Your task to perform on an android device: choose inbox layout in the gmail app Image 0: 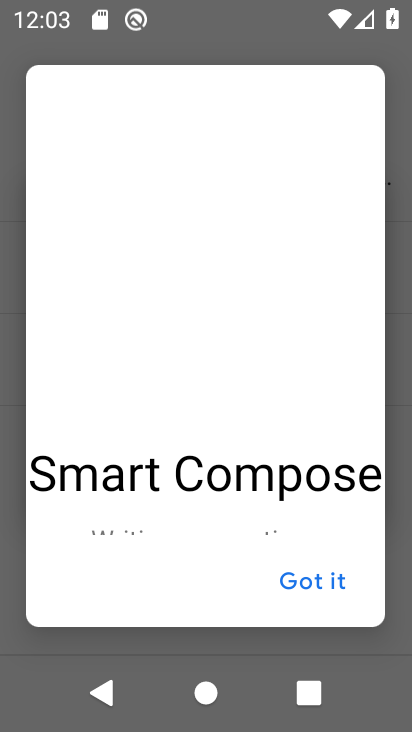
Step 0: press home button
Your task to perform on an android device: choose inbox layout in the gmail app Image 1: 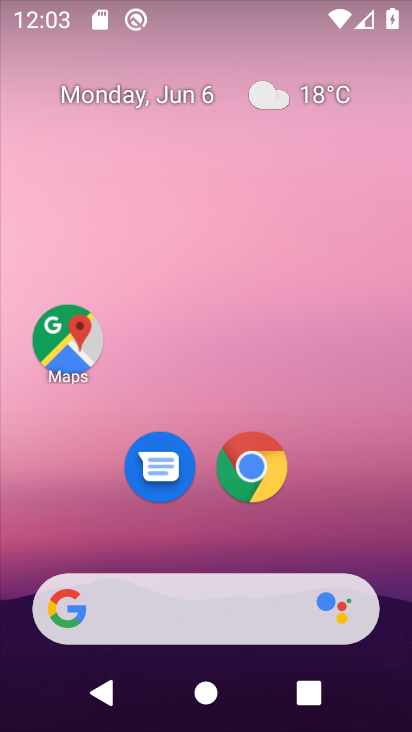
Step 1: drag from (350, 441) to (223, 59)
Your task to perform on an android device: choose inbox layout in the gmail app Image 2: 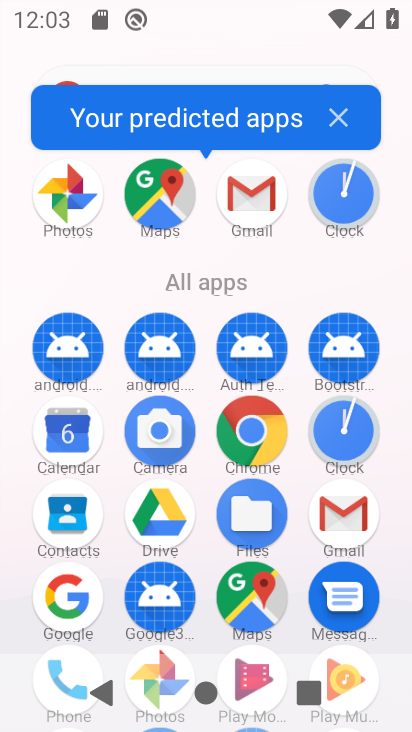
Step 2: drag from (100, 291) to (100, 170)
Your task to perform on an android device: choose inbox layout in the gmail app Image 3: 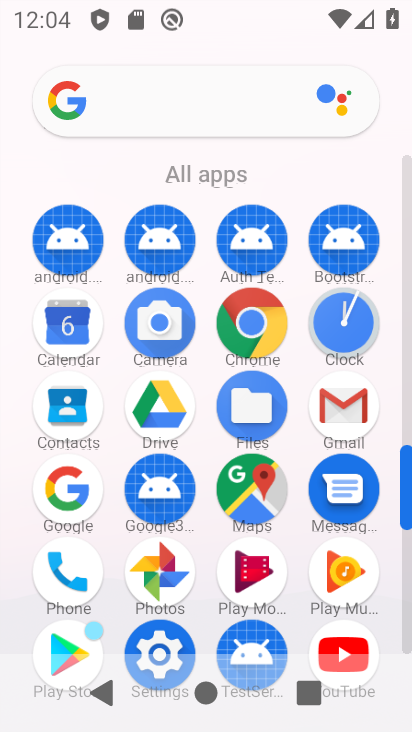
Step 3: click (344, 406)
Your task to perform on an android device: choose inbox layout in the gmail app Image 4: 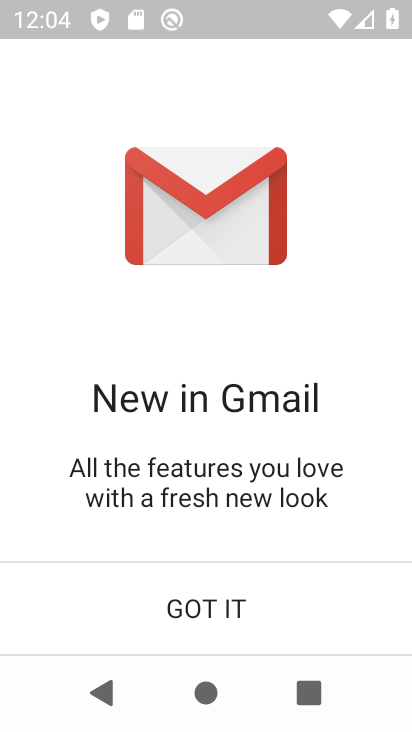
Step 4: click (206, 604)
Your task to perform on an android device: choose inbox layout in the gmail app Image 5: 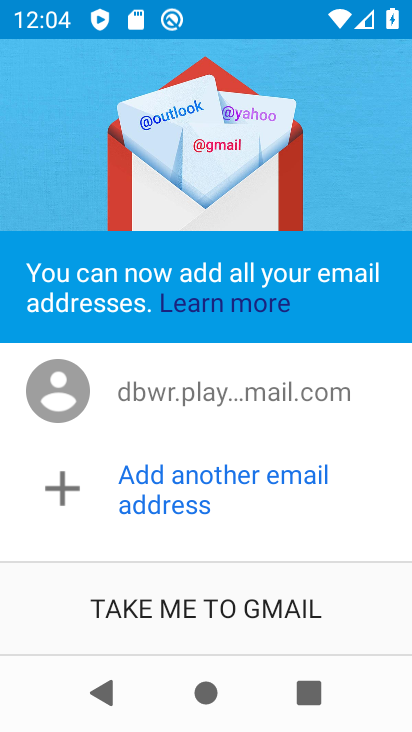
Step 5: click (206, 604)
Your task to perform on an android device: choose inbox layout in the gmail app Image 6: 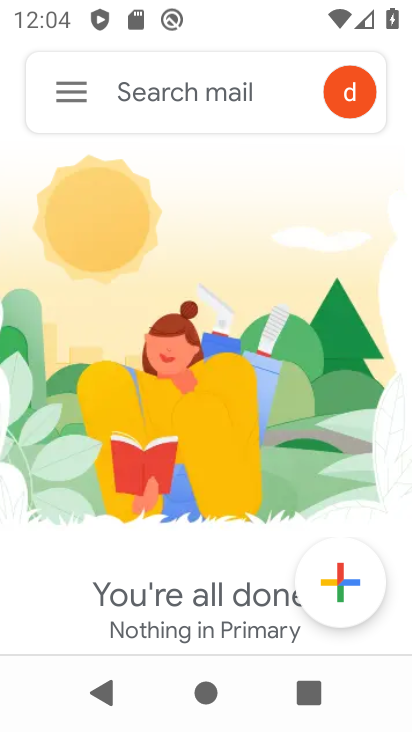
Step 6: click (67, 87)
Your task to perform on an android device: choose inbox layout in the gmail app Image 7: 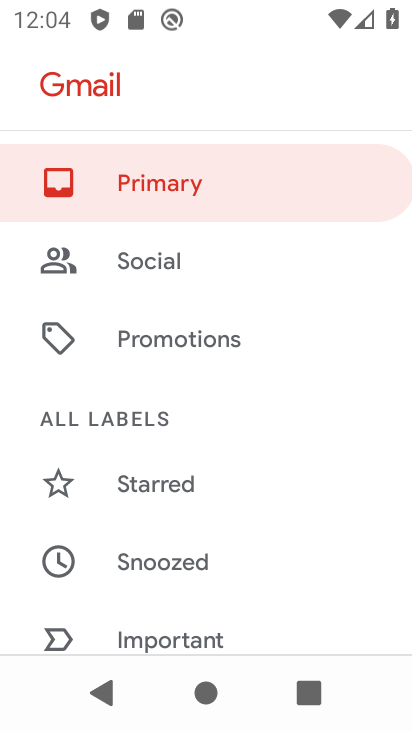
Step 7: drag from (204, 457) to (186, 358)
Your task to perform on an android device: choose inbox layout in the gmail app Image 8: 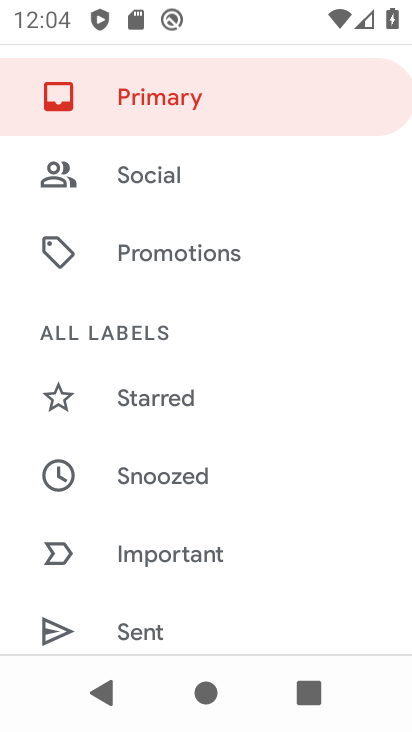
Step 8: drag from (168, 445) to (195, 357)
Your task to perform on an android device: choose inbox layout in the gmail app Image 9: 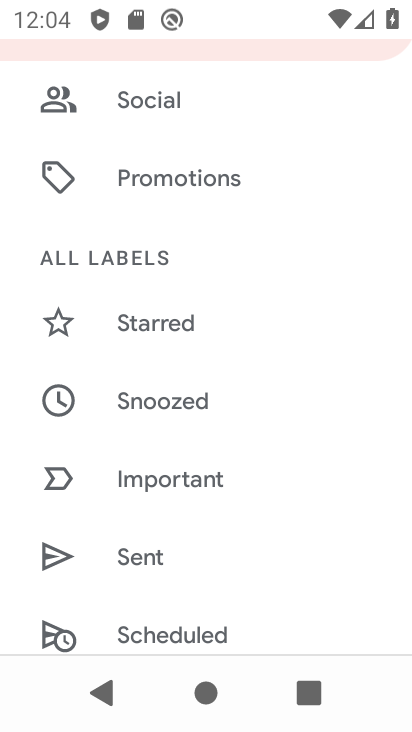
Step 9: drag from (146, 442) to (223, 341)
Your task to perform on an android device: choose inbox layout in the gmail app Image 10: 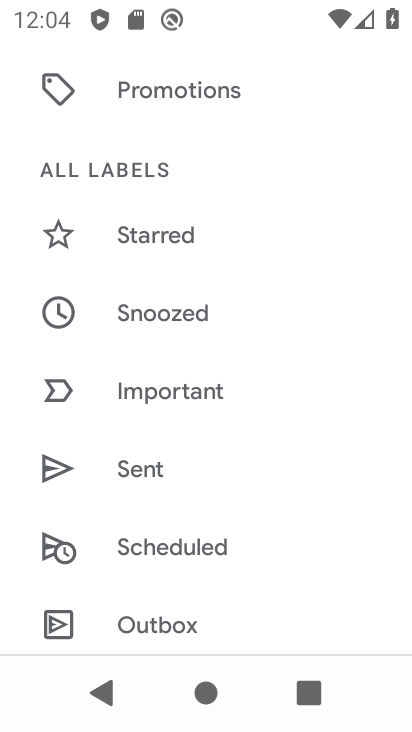
Step 10: drag from (137, 432) to (227, 314)
Your task to perform on an android device: choose inbox layout in the gmail app Image 11: 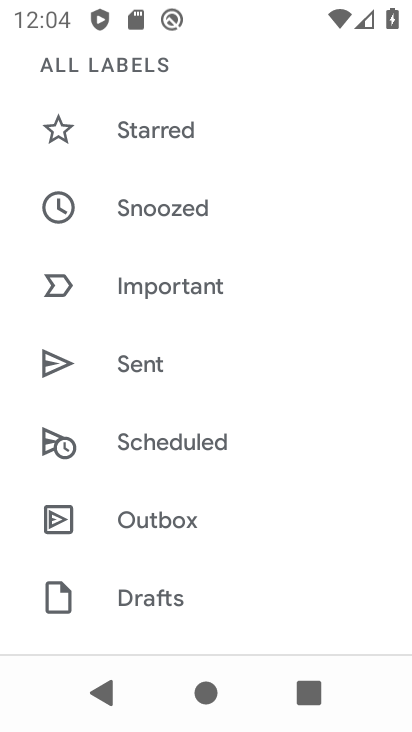
Step 11: drag from (157, 399) to (199, 320)
Your task to perform on an android device: choose inbox layout in the gmail app Image 12: 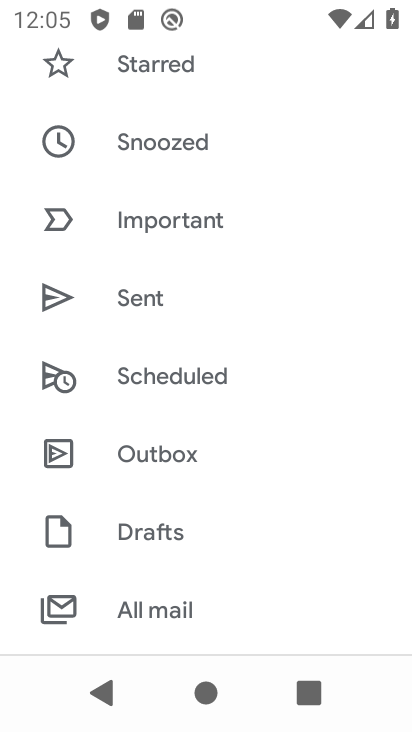
Step 12: drag from (146, 492) to (199, 400)
Your task to perform on an android device: choose inbox layout in the gmail app Image 13: 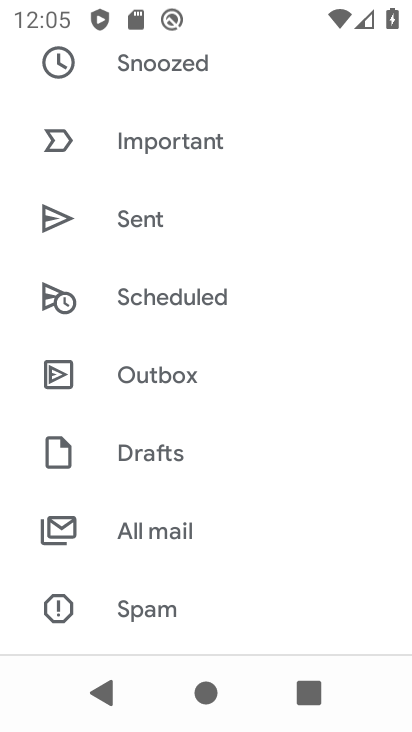
Step 13: drag from (156, 492) to (198, 404)
Your task to perform on an android device: choose inbox layout in the gmail app Image 14: 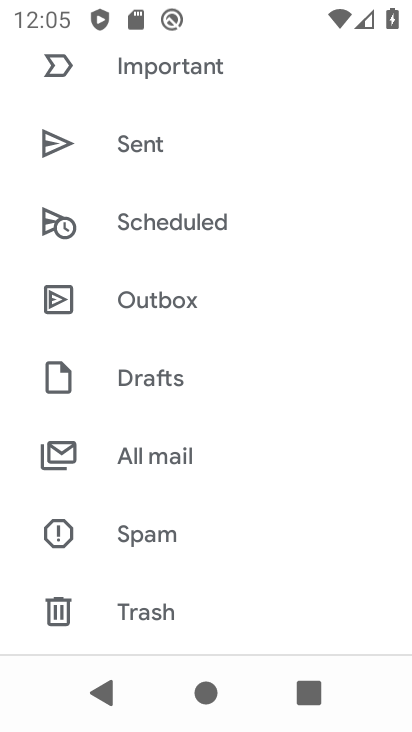
Step 14: drag from (148, 494) to (222, 390)
Your task to perform on an android device: choose inbox layout in the gmail app Image 15: 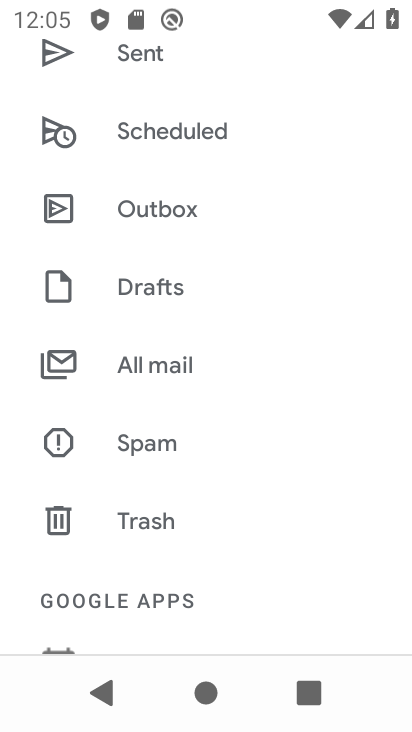
Step 15: drag from (147, 495) to (193, 389)
Your task to perform on an android device: choose inbox layout in the gmail app Image 16: 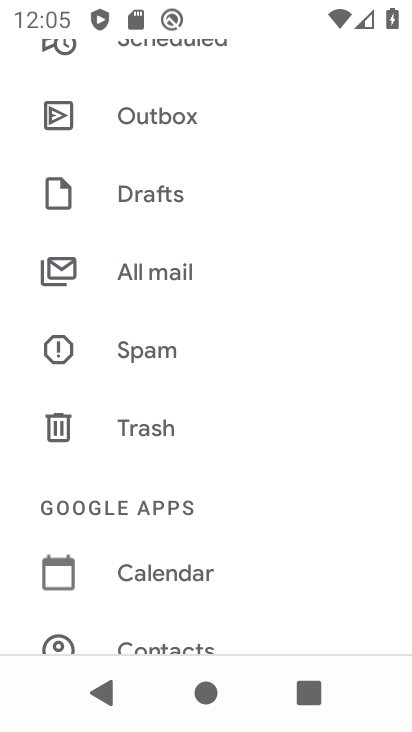
Step 16: drag from (144, 549) to (167, 392)
Your task to perform on an android device: choose inbox layout in the gmail app Image 17: 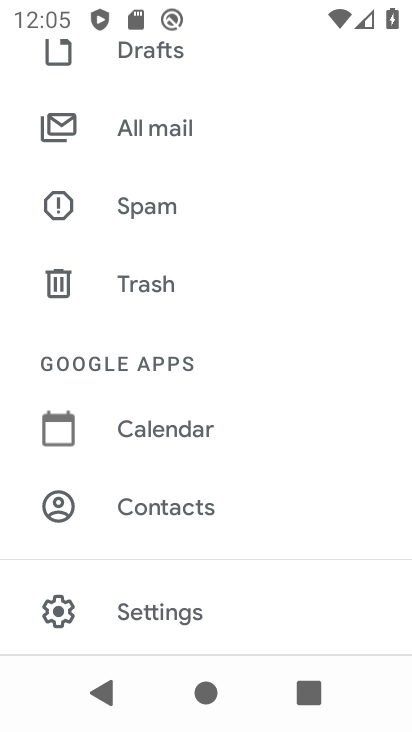
Step 17: drag from (167, 574) to (185, 431)
Your task to perform on an android device: choose inbox layout in the gmail app Image 18: 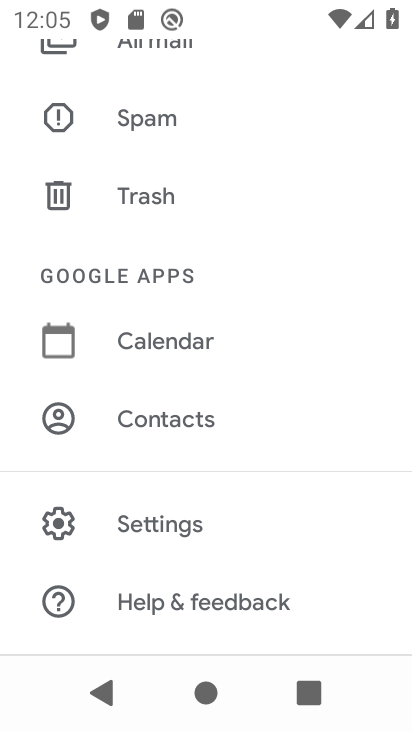
Step 18: click (156, 525)
Your task to perform on an android device: choose inbox layout in the gmail app Image 19: 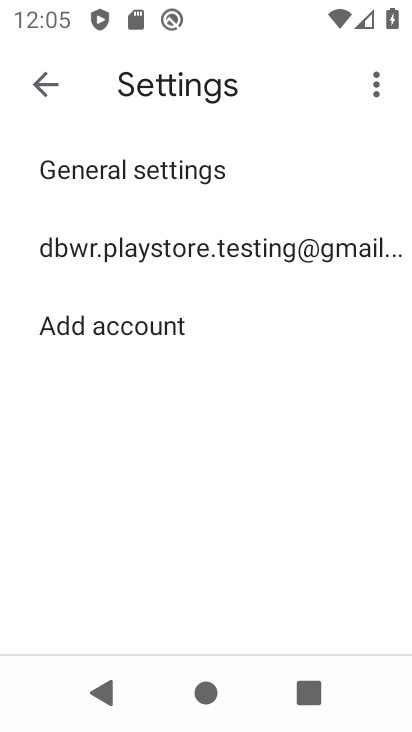
Step 19: click (168, 245)
Your task to perform on an android device: choose inbox layout in the gmail app Image 20: 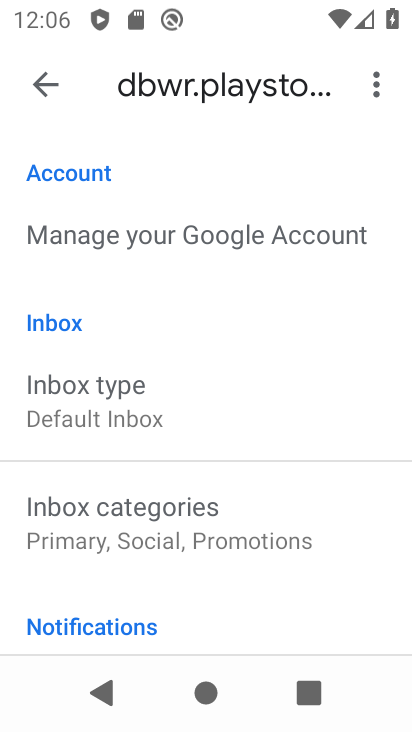
Step 20: drag from (177, 462) to (219, 350)
Your task to perform on an android device: choose inbox layout in the gmail app Image 21: 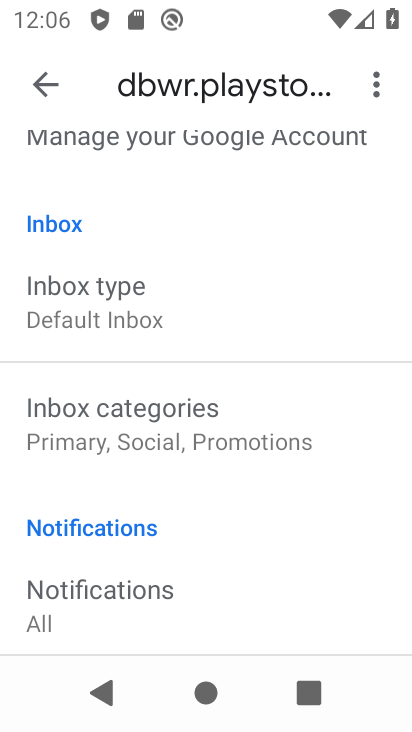
Step 21: click (138, 317)
Your task to perform on an android device: choose inbox layout in the gmail app Image 22: 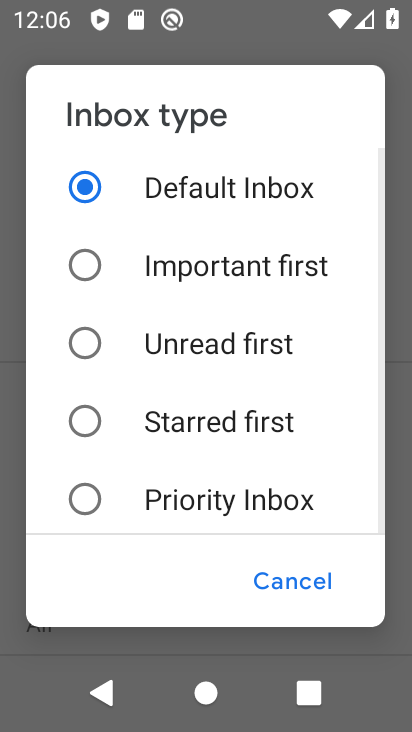
Step 22: click (98, 273)
Your task to perform on an android device: choose inbox layout in the gmail app Image 23: 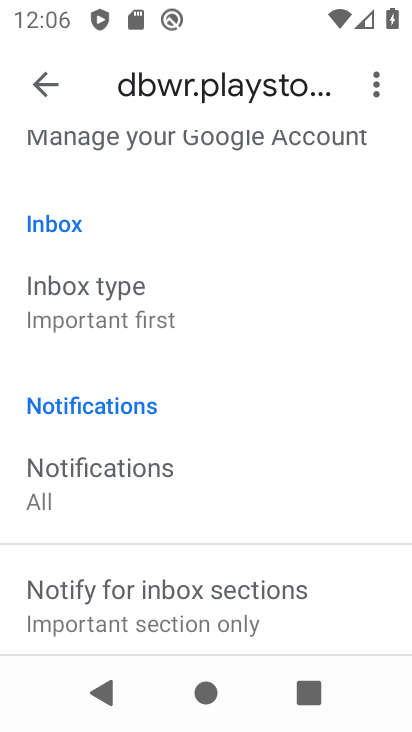
Step 23: task complete